Your task to perform on an android device: Go to network settings Image 0: 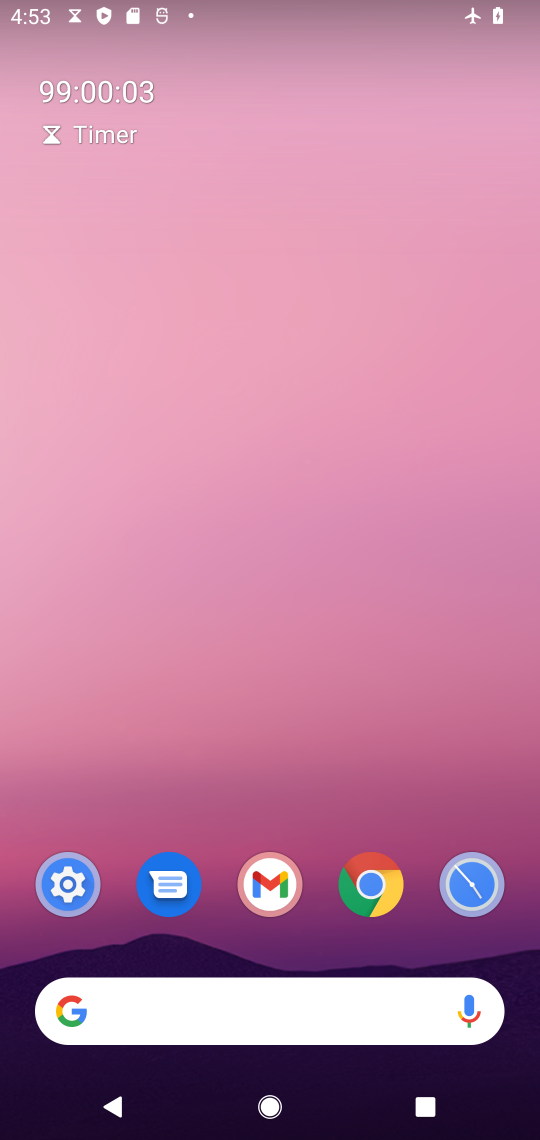
Step 0: drag from (122, 943) to (229, 247)
Your task to perform on an android device: Go to network settings Image 1: 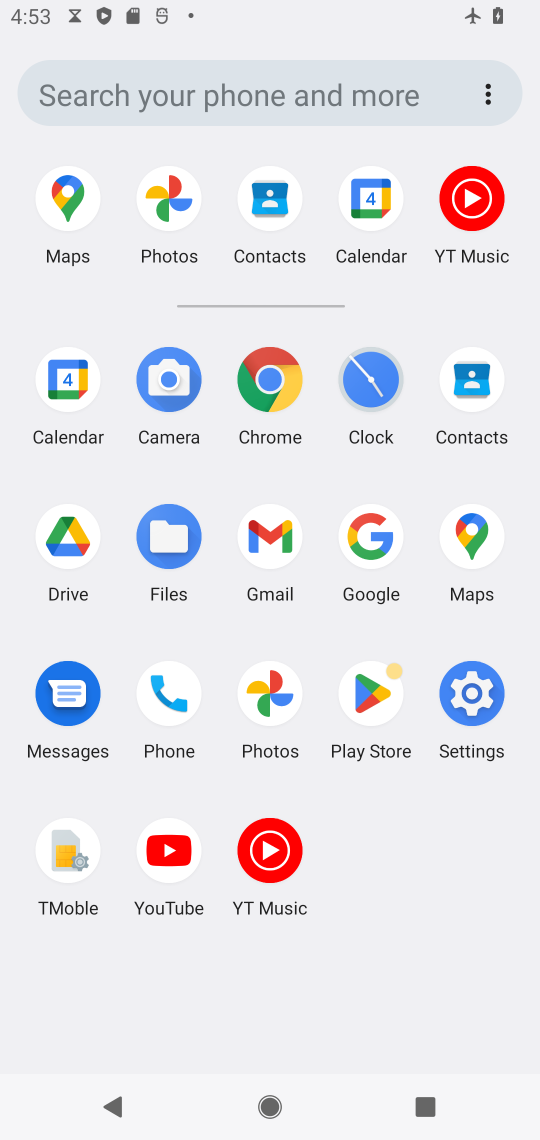
Step 1: click (459, 687)
Your task to perform on an android device: Go to network settings Image 2: 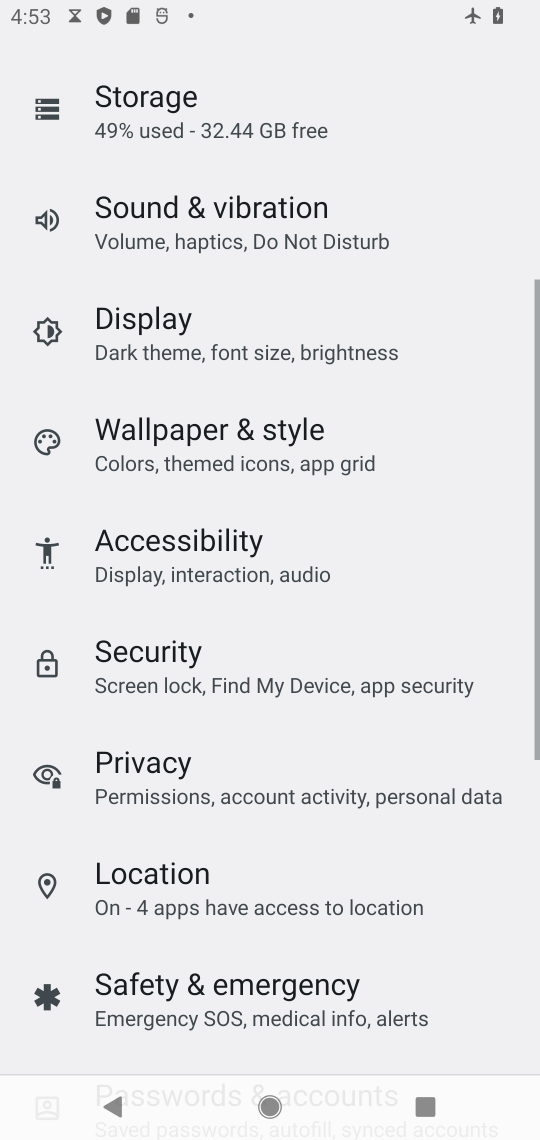
Step 2: drag from (218, 270) to (218, 887)
Your task to perform on an android device: Go to network settings Image 3: 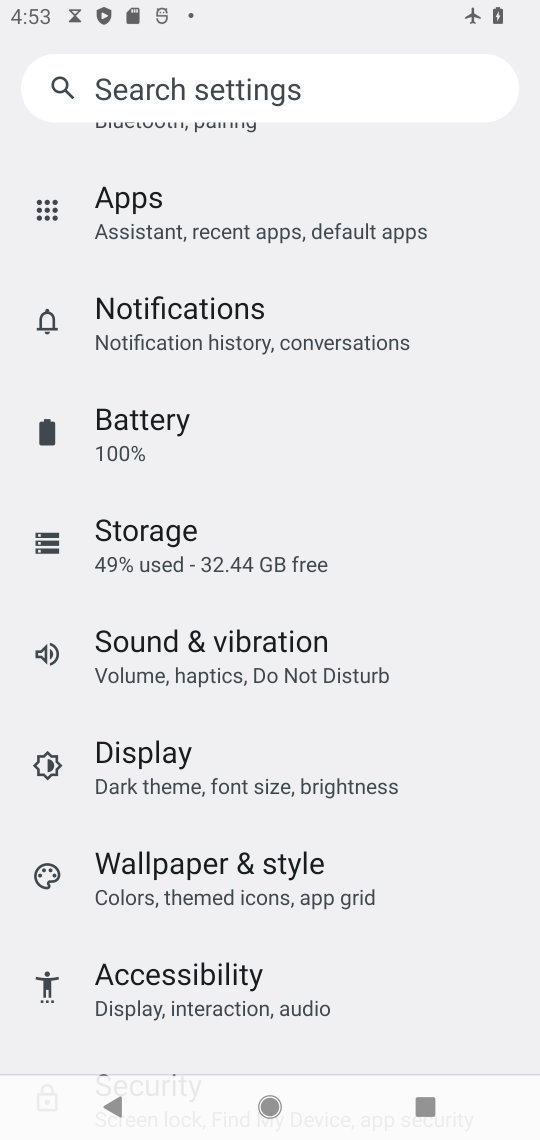
Step 3: drag from (219, 287) to (216, 877)
Your task to perform on an android device: Go to network settings Image 4: 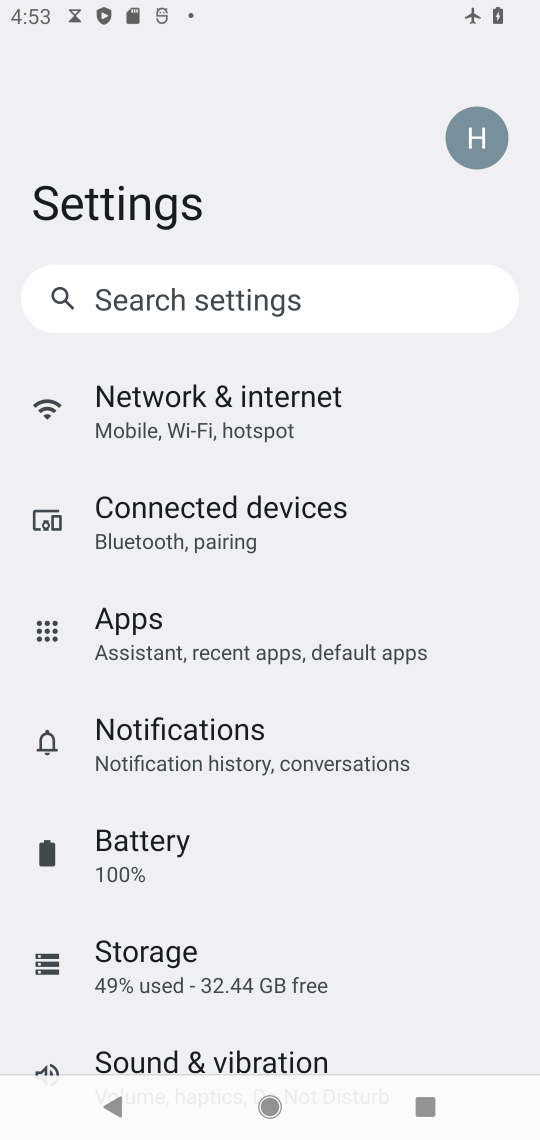
Step 4: click (235, 406)
Your task to perform on an android device: Go to network settings Image 5: 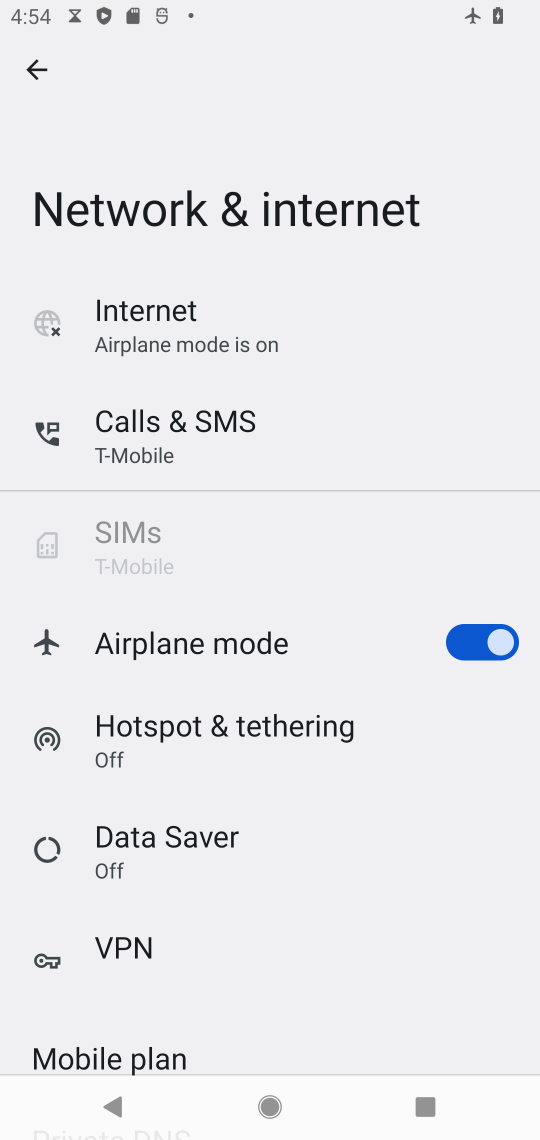
Step 5: task complete